Your task to perform on an android device: toggle pop-ups in chrome Image 0: 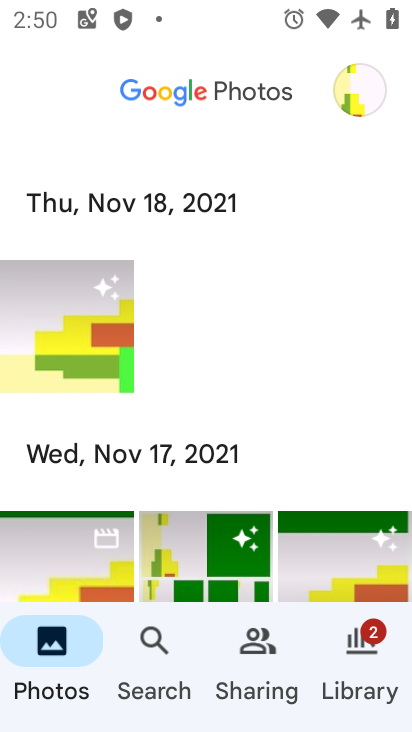
Step 0: press home button
Your task to perform on an android device: toggle pop-ups in chrome Image 1: 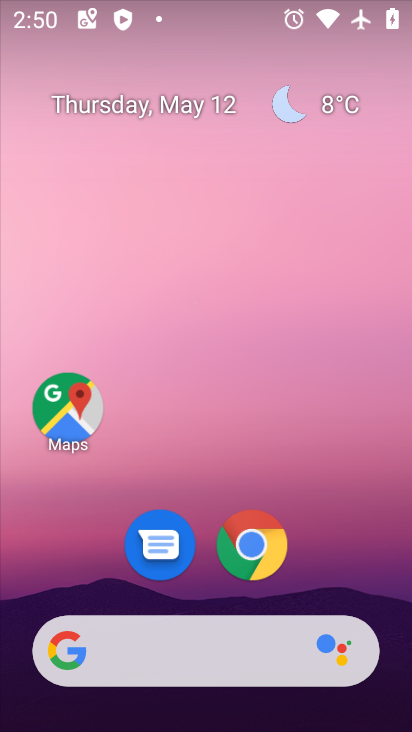
Step 1: click (253, 552)
Your task to perform on an android device: toggle pop-ups in chrome Image 2: 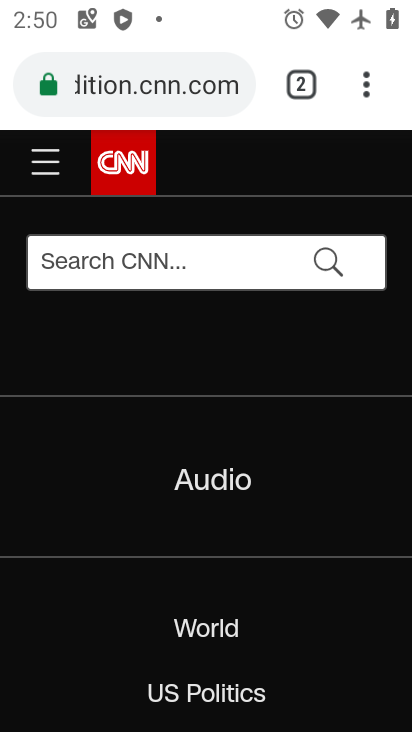
Step 2: click (364, 83)
Your task to perform on an android device: toggle pop-ups in chrome Image 3: 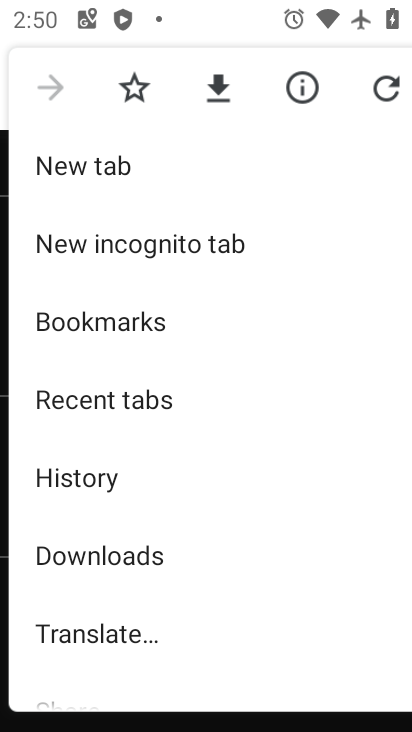
Step 3: drag from (267, 543) to (247, 277)
Your task to perform on an android device: toggle pop-ups in chrome Image 4: 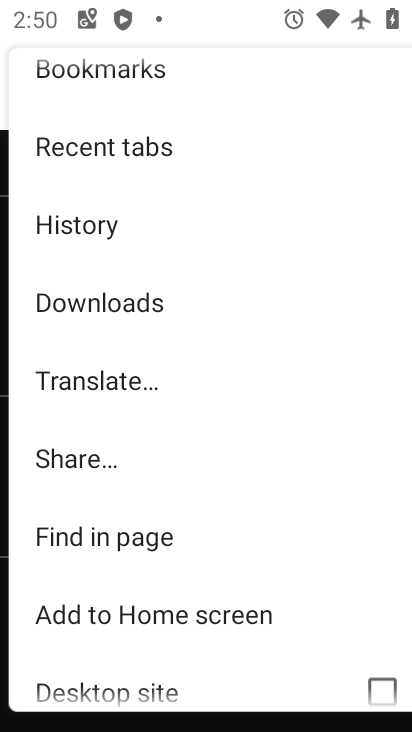
Step 4: drag from (221, 651) to (226, 252)
Your task to perform on an android device: toggle pop-ups in chrome Image 5: 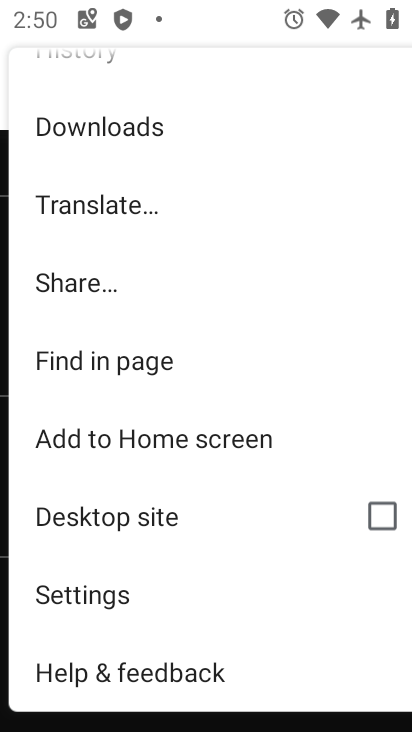
Step 5: click (64, 612)
Your task to perform on an android device: toggle pop-ups in chrome Image 6: 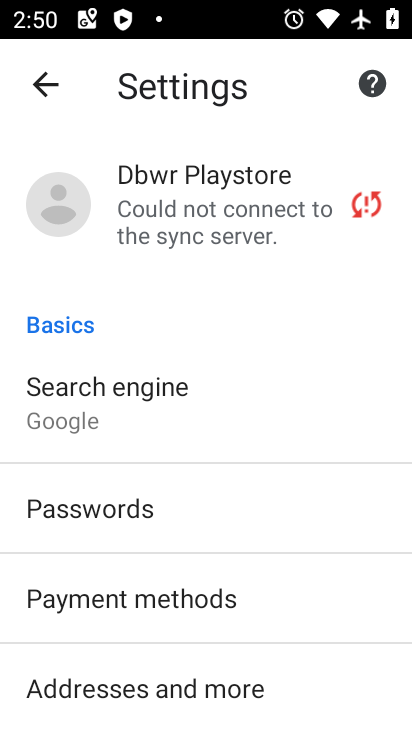
Step 6: drag from (277, 671) to (228, 268)
Your task to perform on an android device: toggle pop-ups in chrome Image 7: 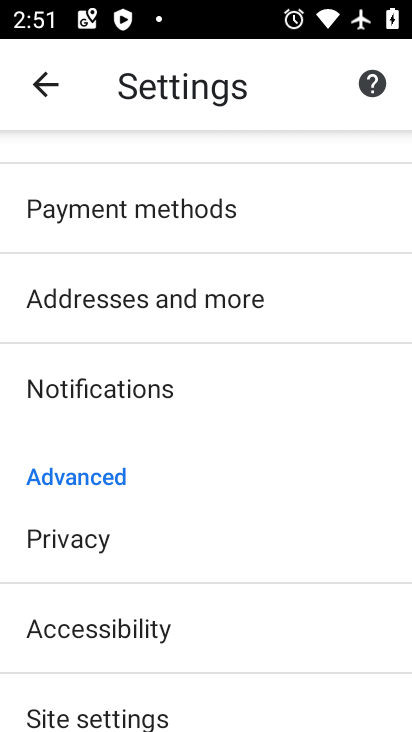
Step 7: drag from (188, 595) to (276, 256)
Your task to perform on an android device: toggle pop-ups in chrome Image 8: 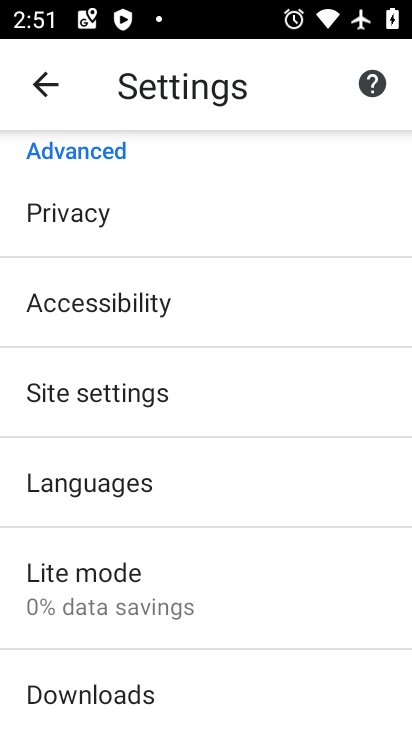
Step 8: click (90, 381)
Your task to perform on an android device: toggle pop-ups in chrome Image 9: 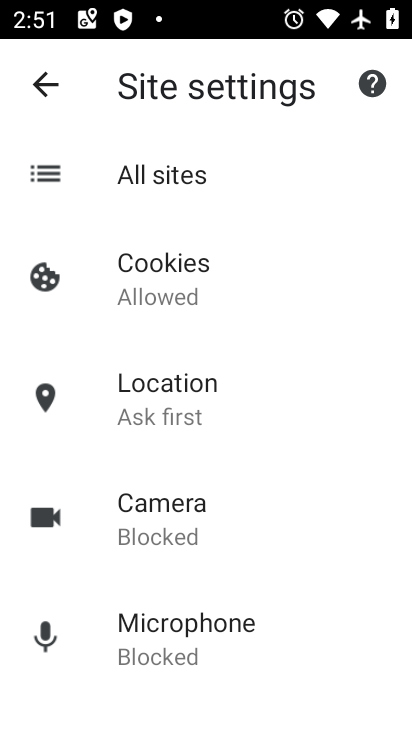
Step 9: drag from (203, 632) to (243, 214)
Your task to perform on an android device: toggle pop-ups in chrome Image 10: 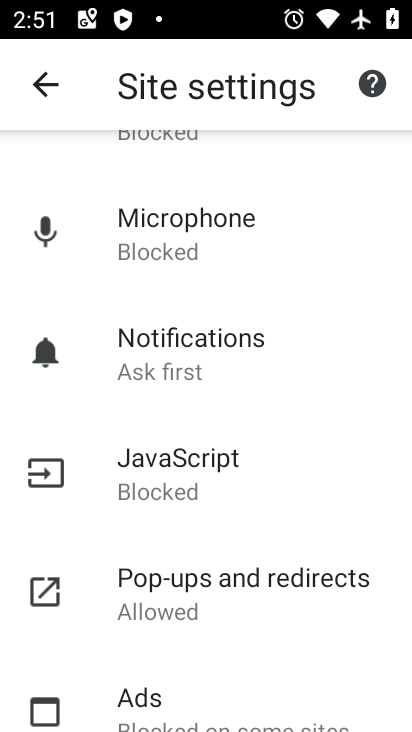
Step 10: click (182, 604)
Your task to perform on an android device: toggle pop-ups in chrome Image 11: 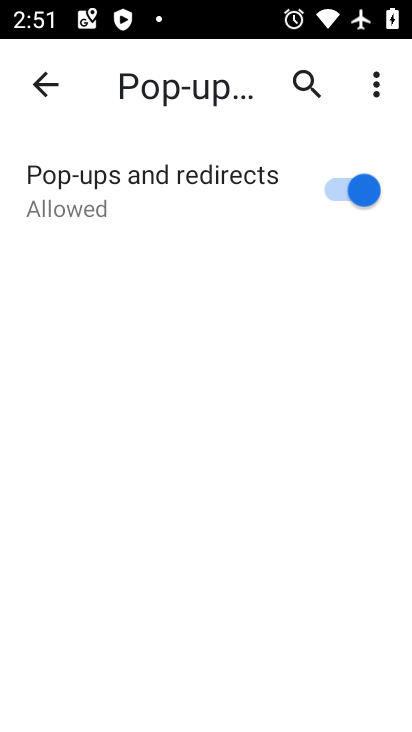
Step 11: click (337, 192)
Your task to perform on an android device: toggle pop-ups in chrome Image 12: 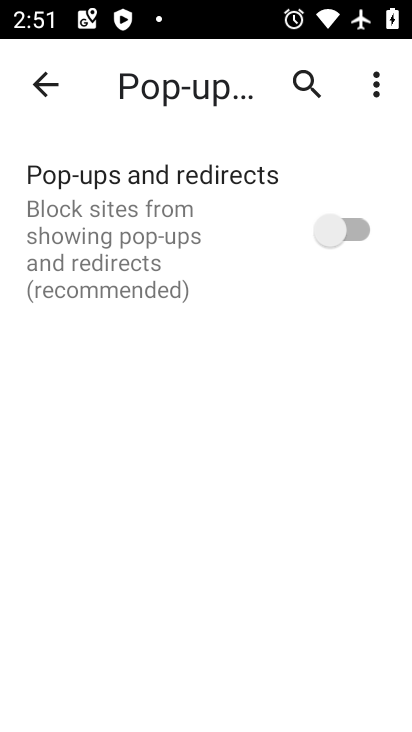
Step 12: task complete